Your task to perform on an android device: Open Google Maps and go to "Timeline" Image 0: 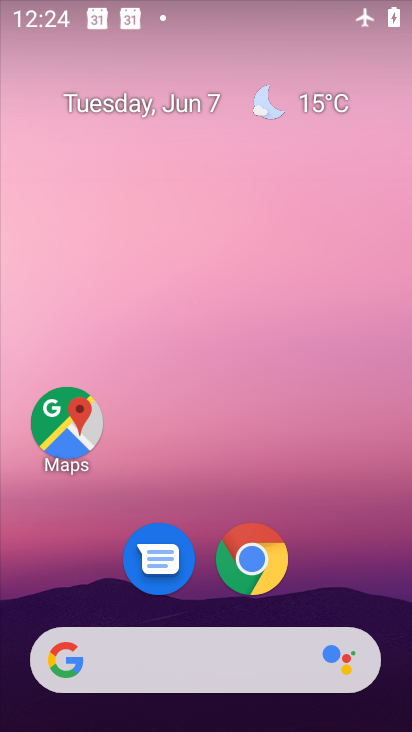
Step 0: click (70, 427)
Your task to perform on an android device: Open Google Maps and go to "Timeline" Image 1: 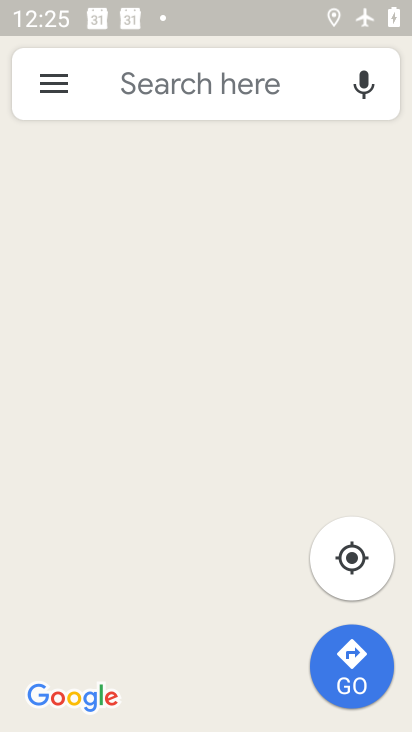
Step 1: click (53, 85)
Your task to perform on an android device: Open Google Maps and go to "Timeline" Image 2: 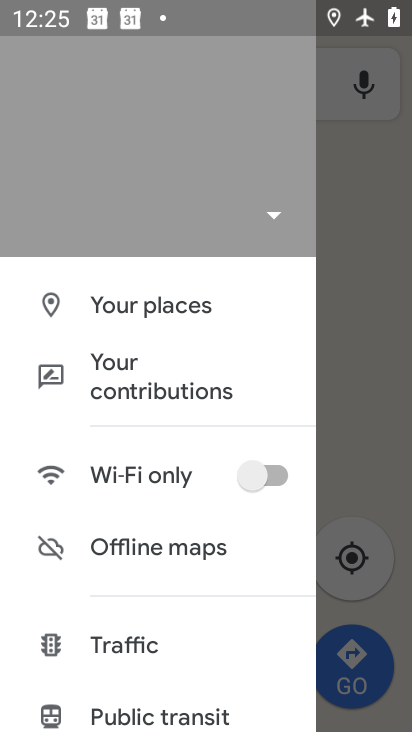
Step 2: task complete